Your task to perform on an android device: turn off data saver in the chrome app Image 0: 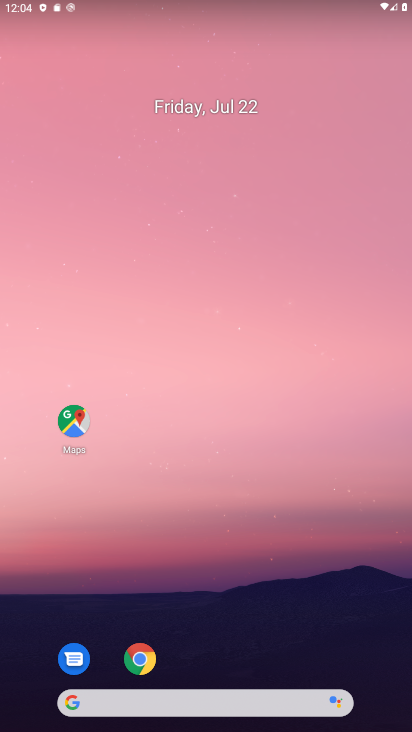
Step 0: click (144, 656)
Your task to perform on an android device: turn off data saver in the chrome app Image 1: 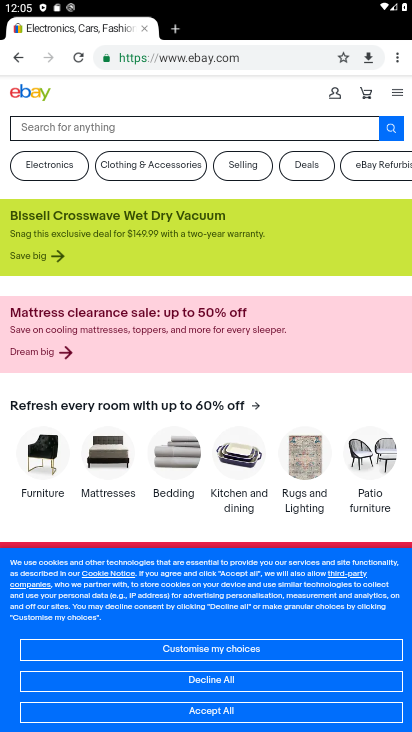
Step 1: click (391, 61)
Your task to perform on an android device: turn off data saver in the chrome app Image 2: 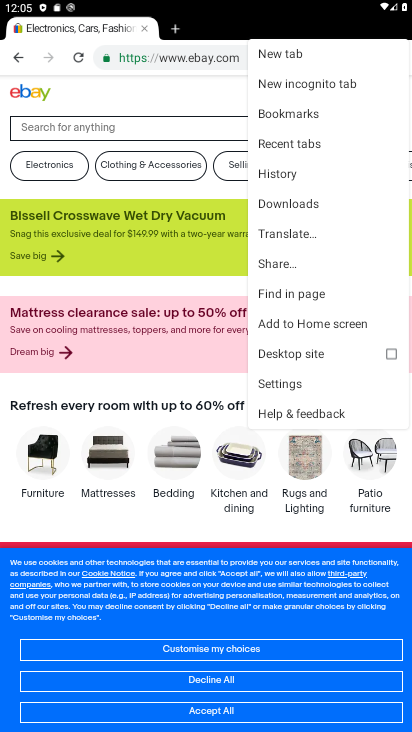
Step 2: task complete